Your task to perform on an android device: install app "Google Chat" Image 0: 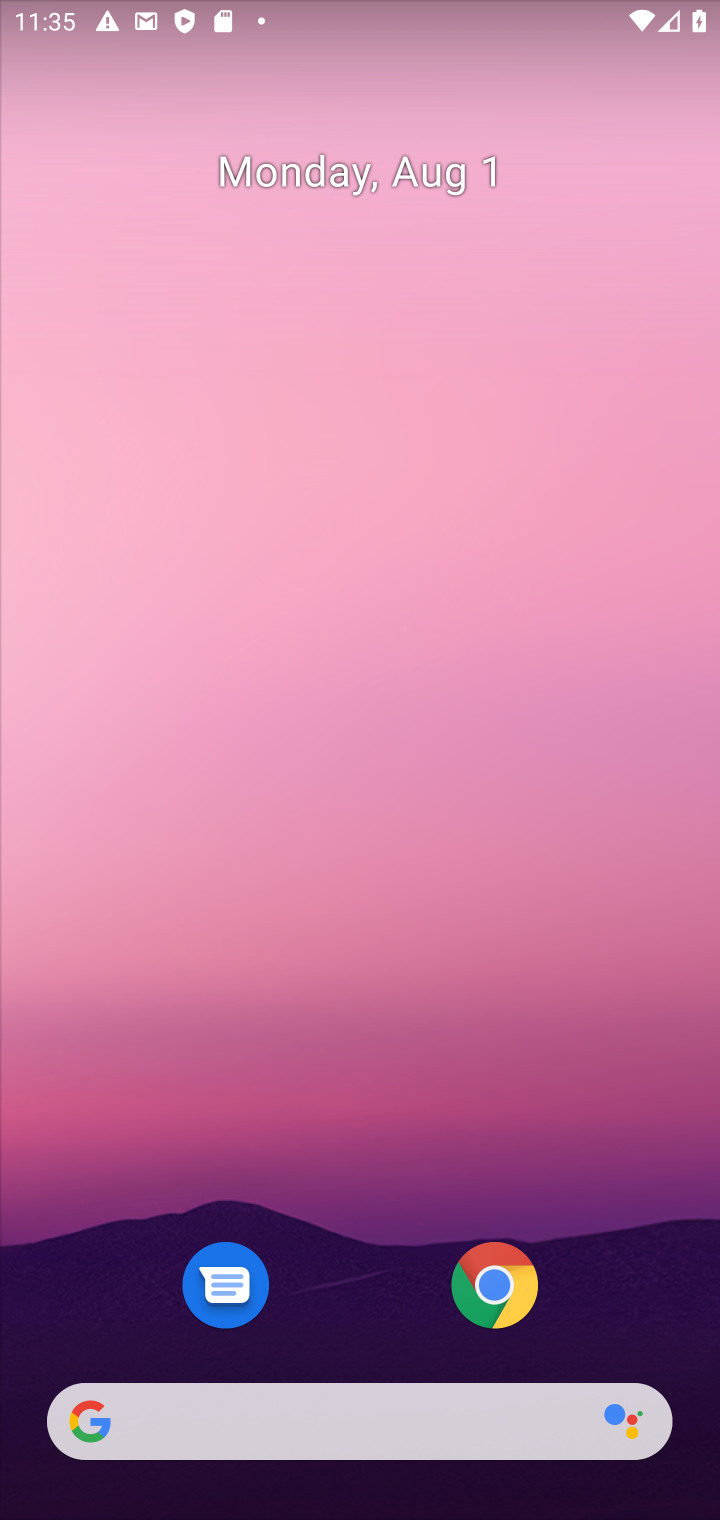
Step 0: press home button
Your task to perform on an android device: install app "Google Chat" Image 1: 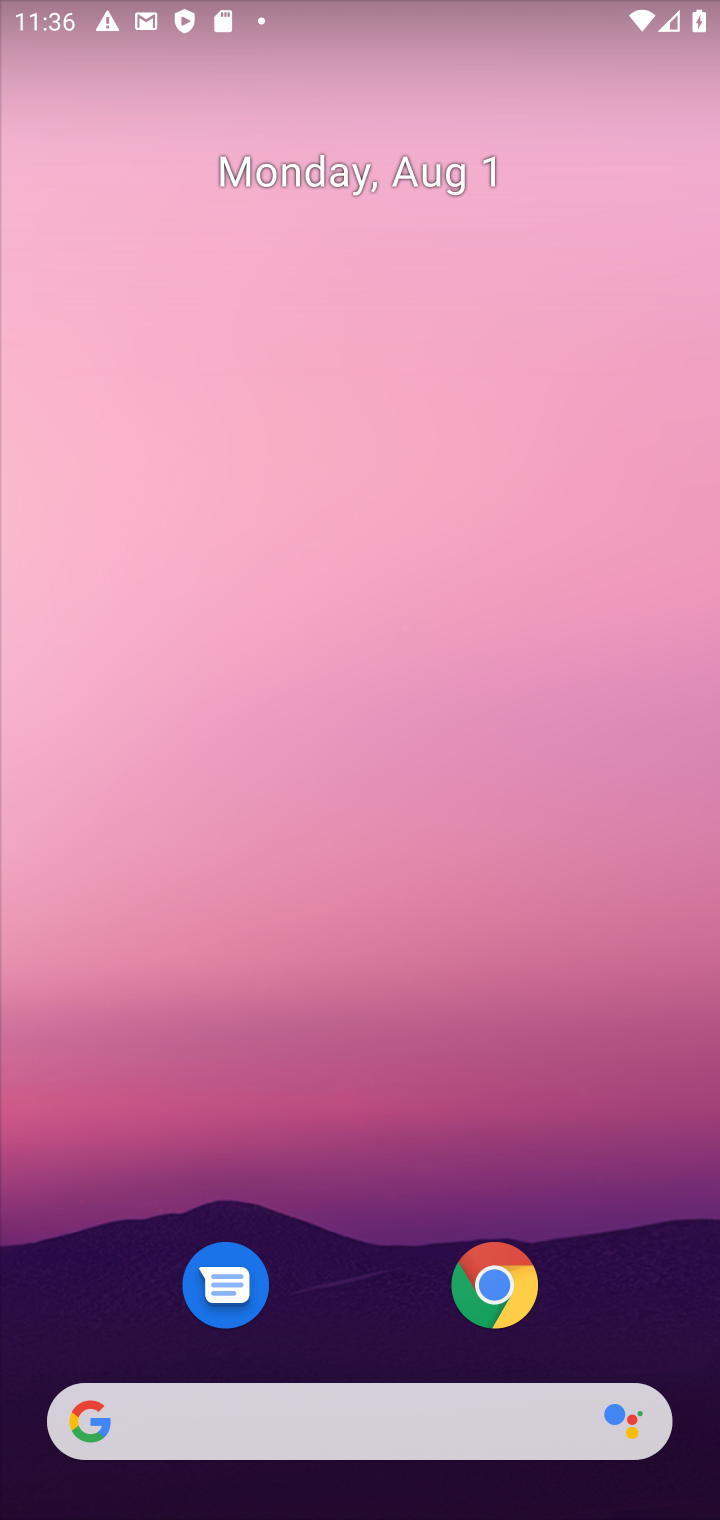
Step 1: drag from (352, 1347) to (315, 171)
Your task to perform on an android device: install app "Google Chat" Image 2: 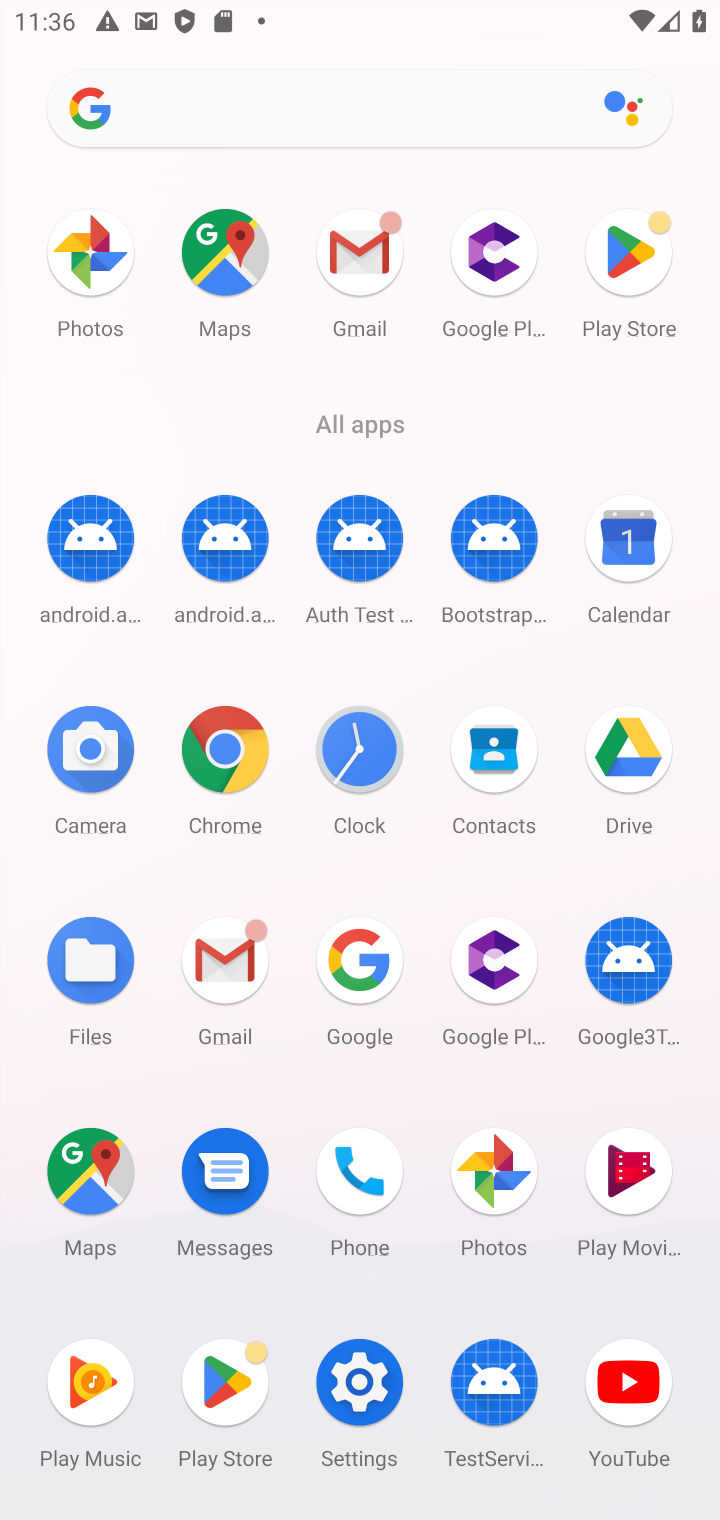
Step 2: click (621, 255)
Your task to perform on an android device: install app "Google Chat" Image 3: 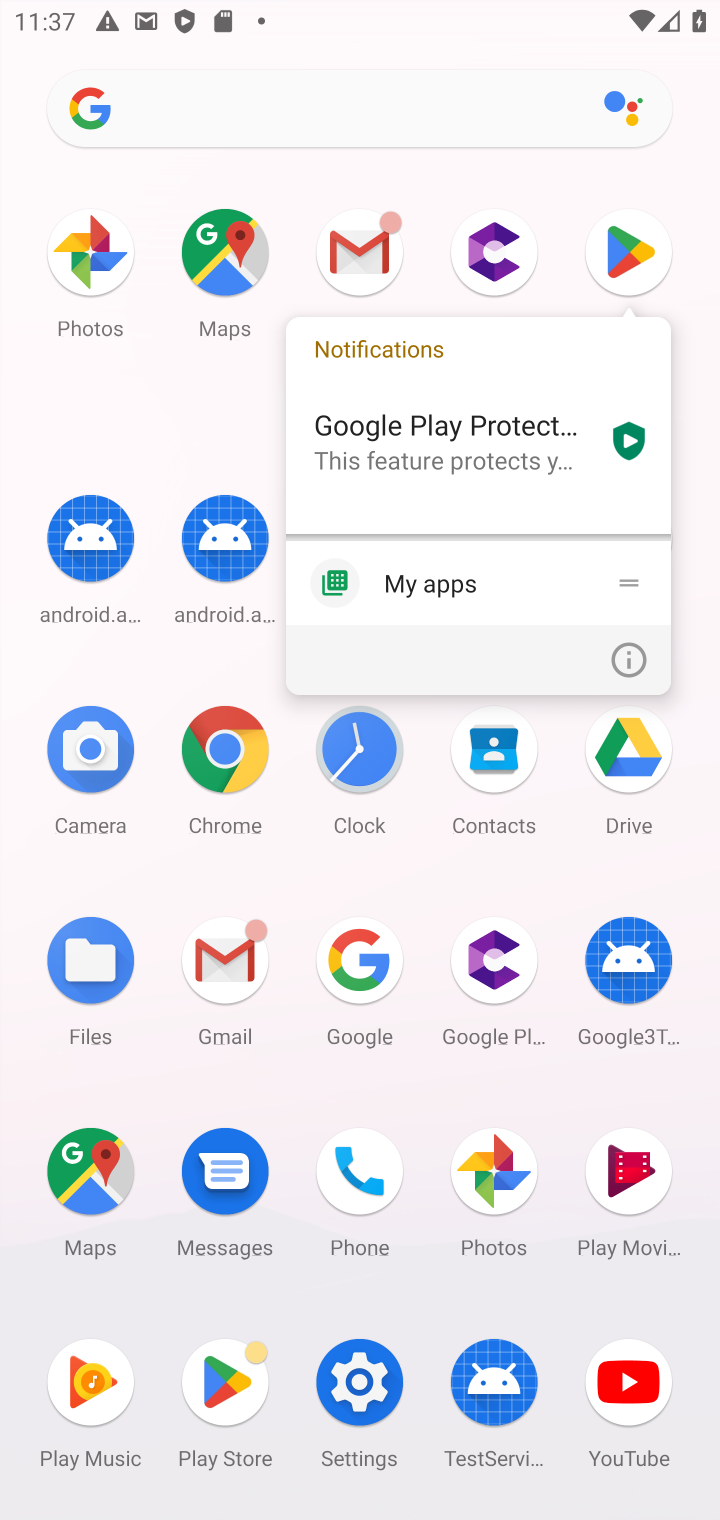
Step 3: click (621, 255)
Your task to perform on an android device: install app "Google Chat" Image 4: 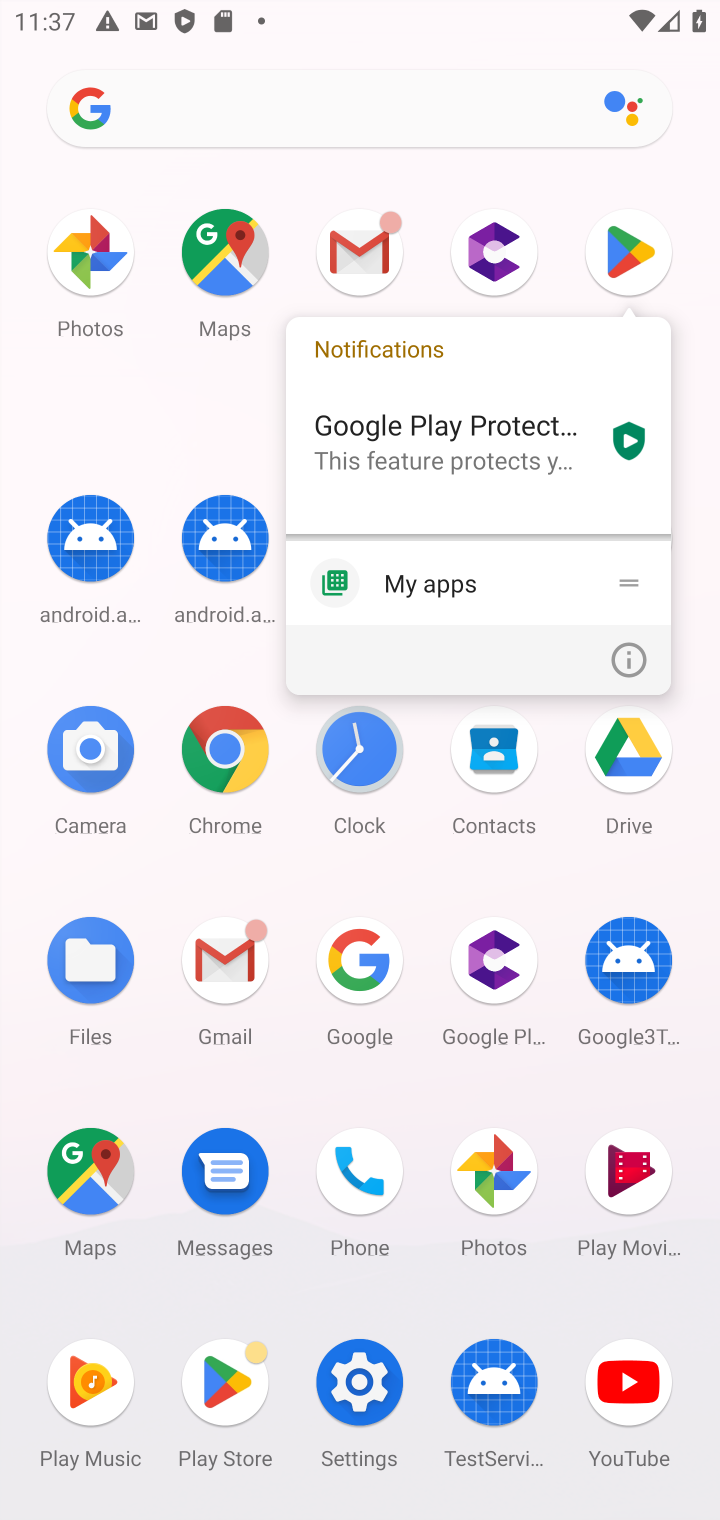
Step 4: click (621, 255)
Your task to perform on an android device: install app "Google Chat" Image 5: 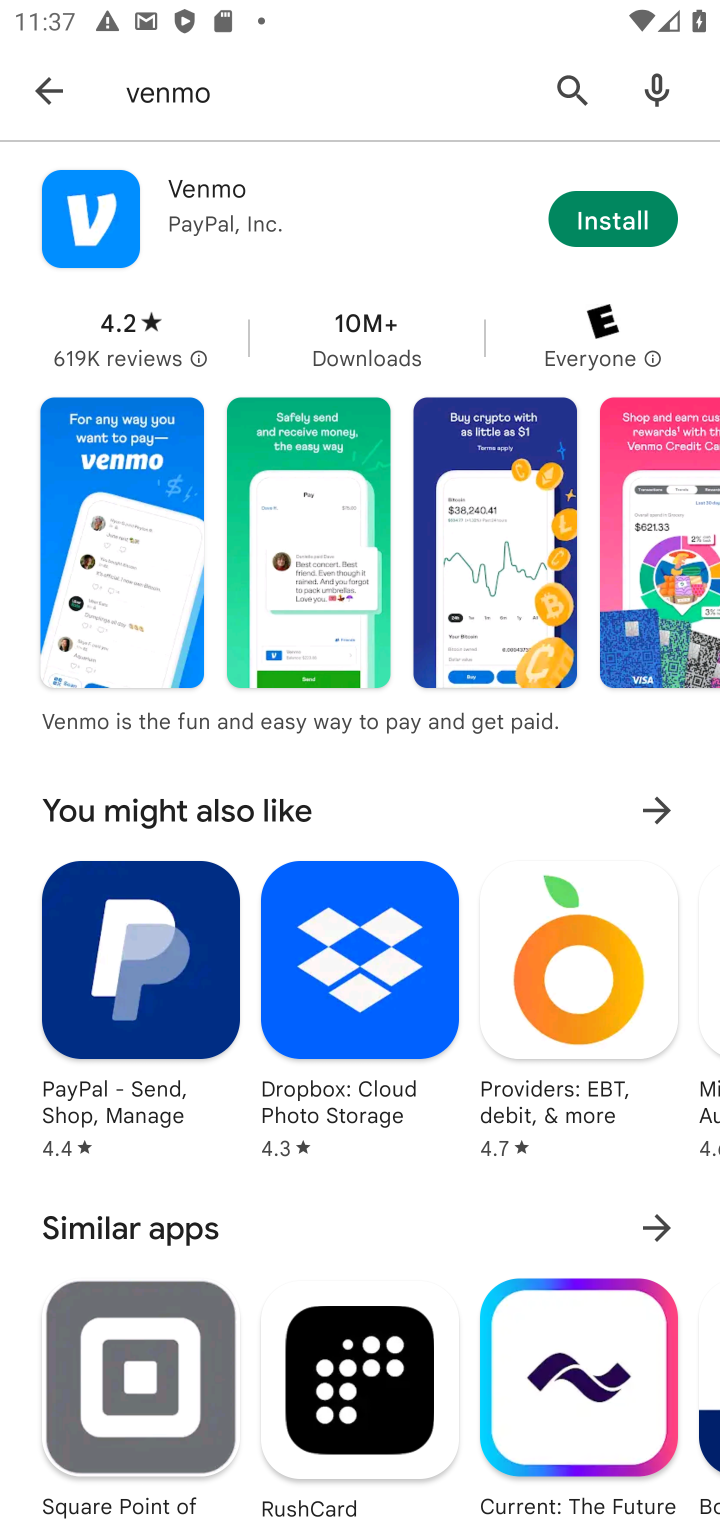
Step 5: click (561, 59)
Your task to perform on an android device: install app "Google Chat" Image 6: 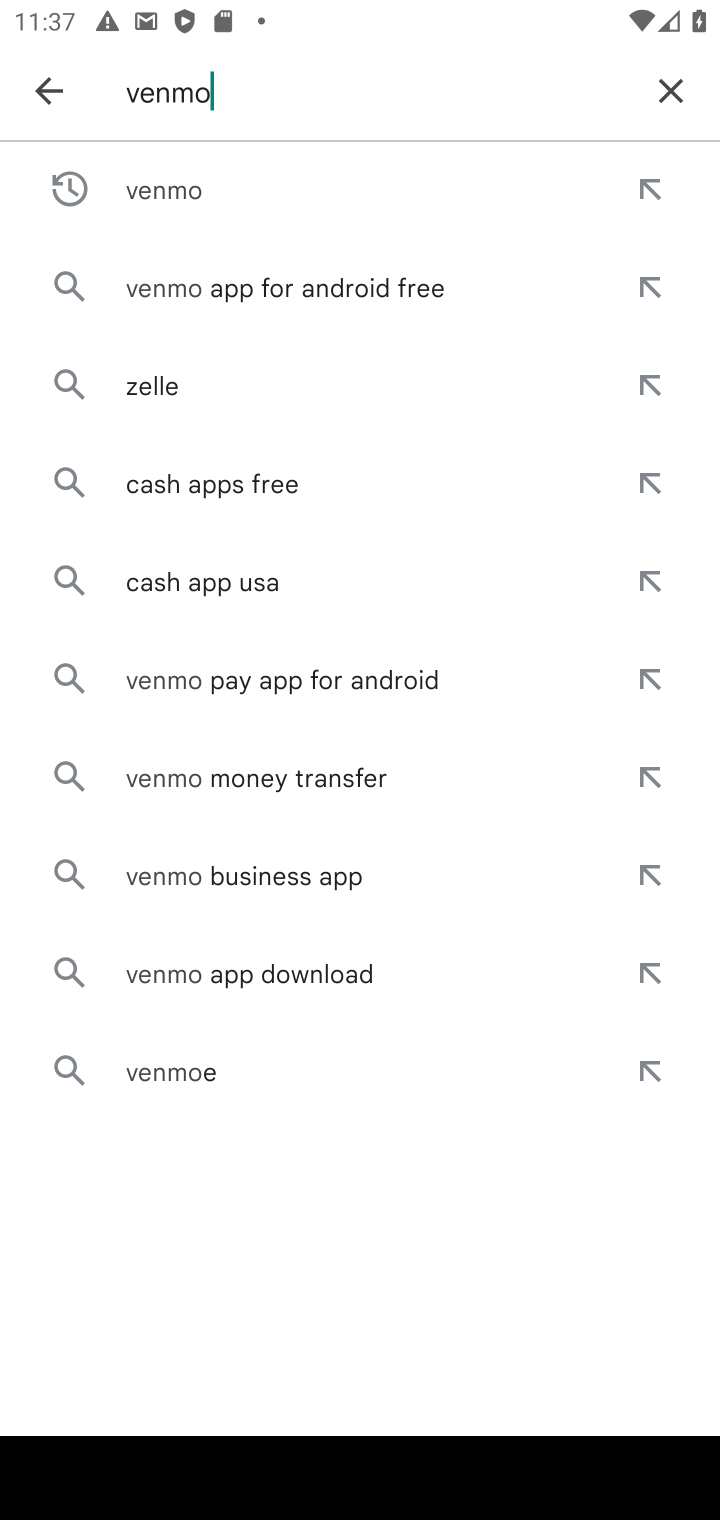
Step 6: click (657, 93)
Your task to perform on an android device: install app "Google Chat" Image 7: 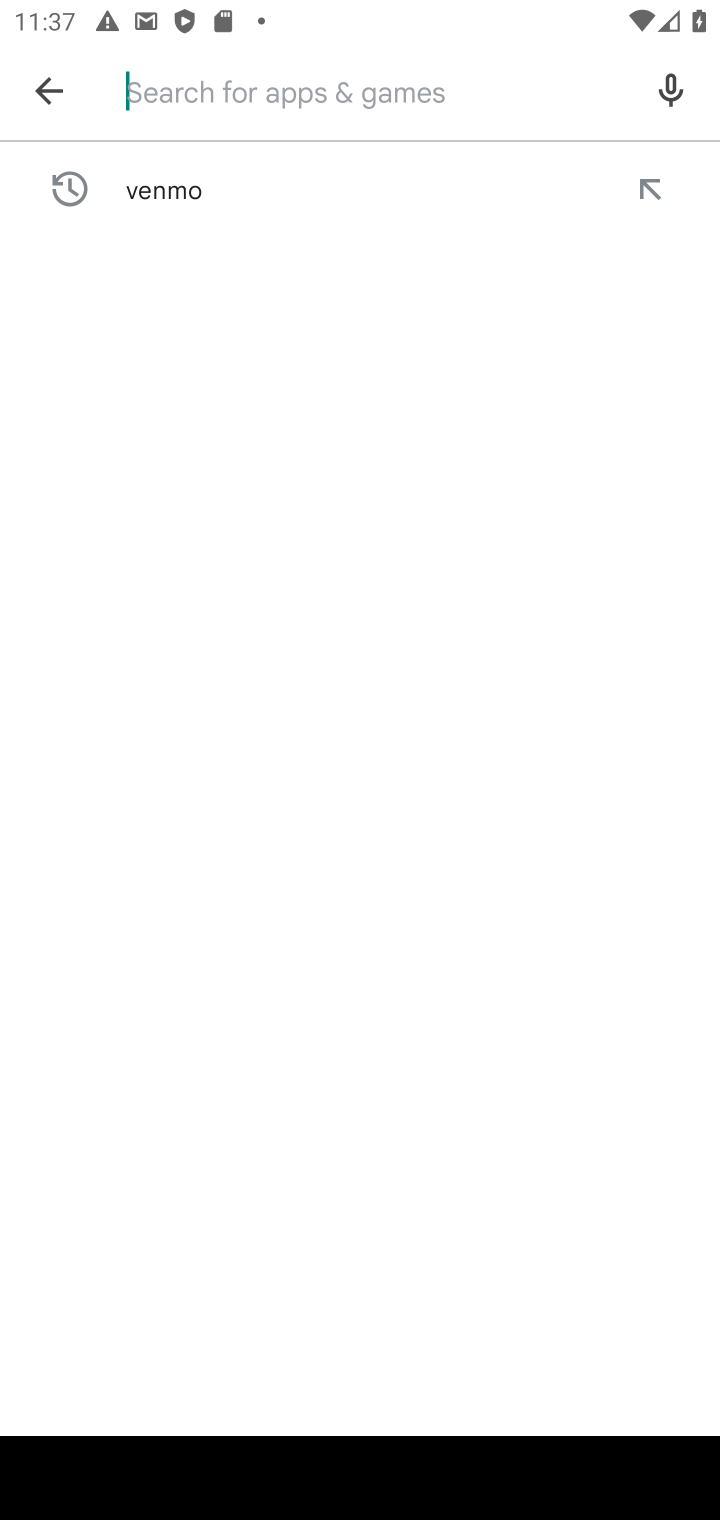
Step 7: type "Google Chat"
Your task to perform on an android device: install app "Google Chat" Image 8: 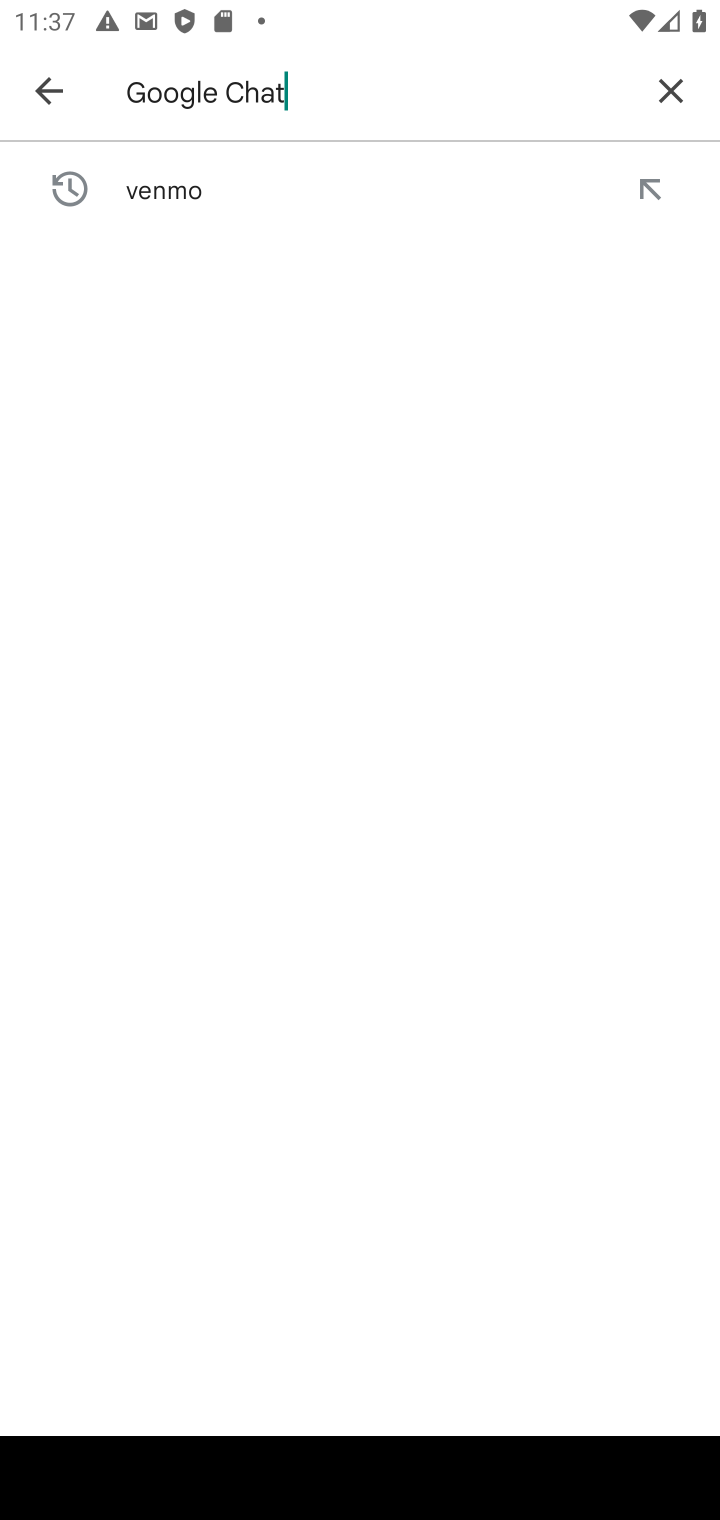
Step 8: type ""
Your task to perform on an android device: install app "Google Chat" Image 9: 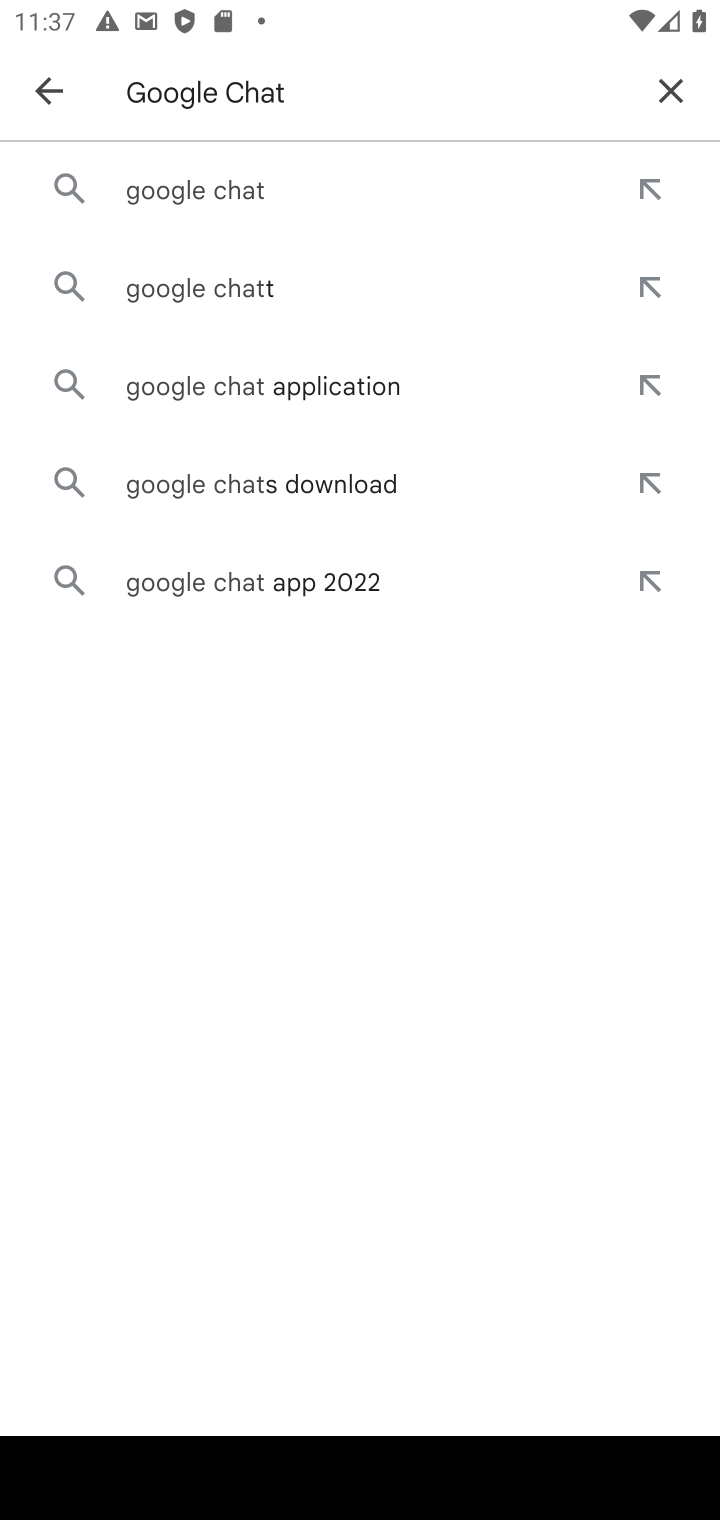
Step 9: click (207, 183)
Your task to perform on an android device: install app "Google Chat" Image 10: 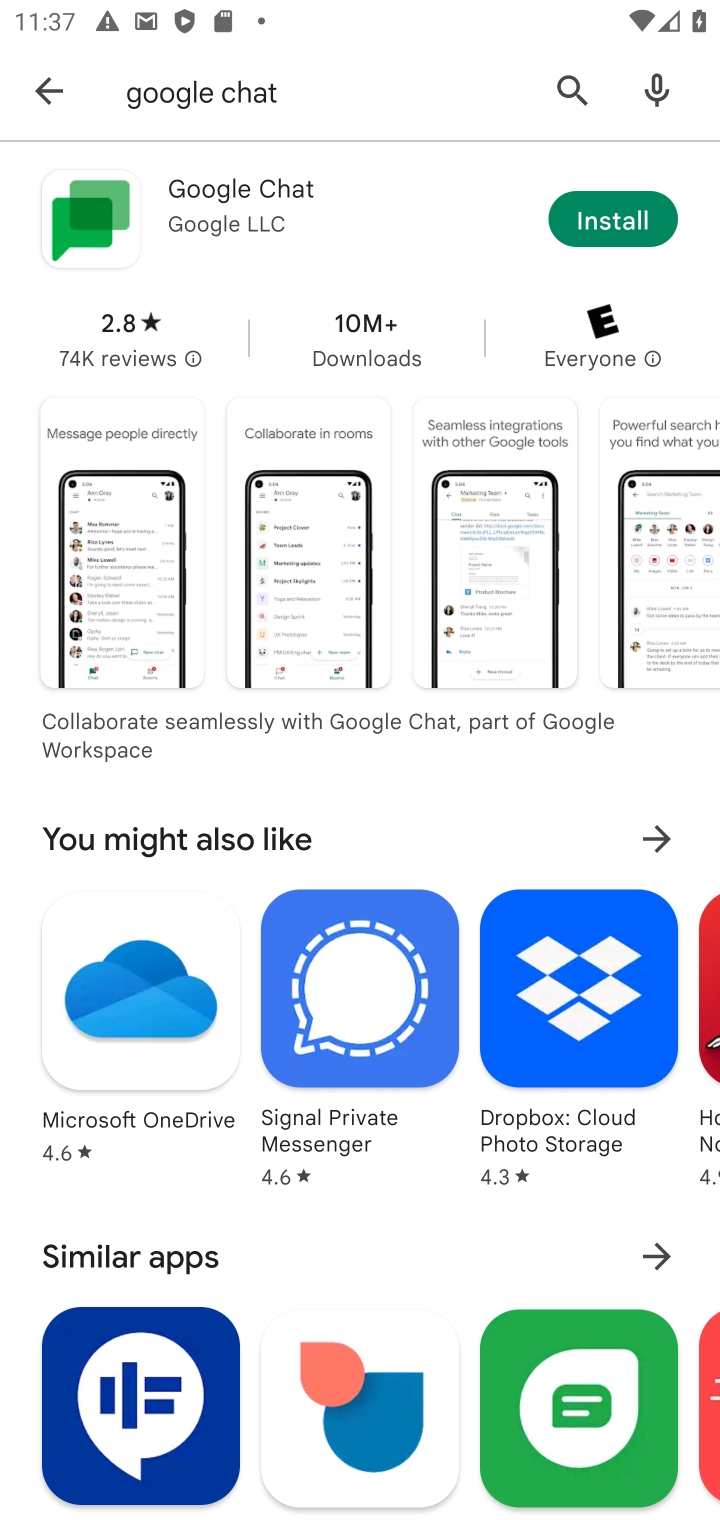
Step 10: click (648, 234)
Your task to perform on an android device: install app "Google Chat" Image 11: 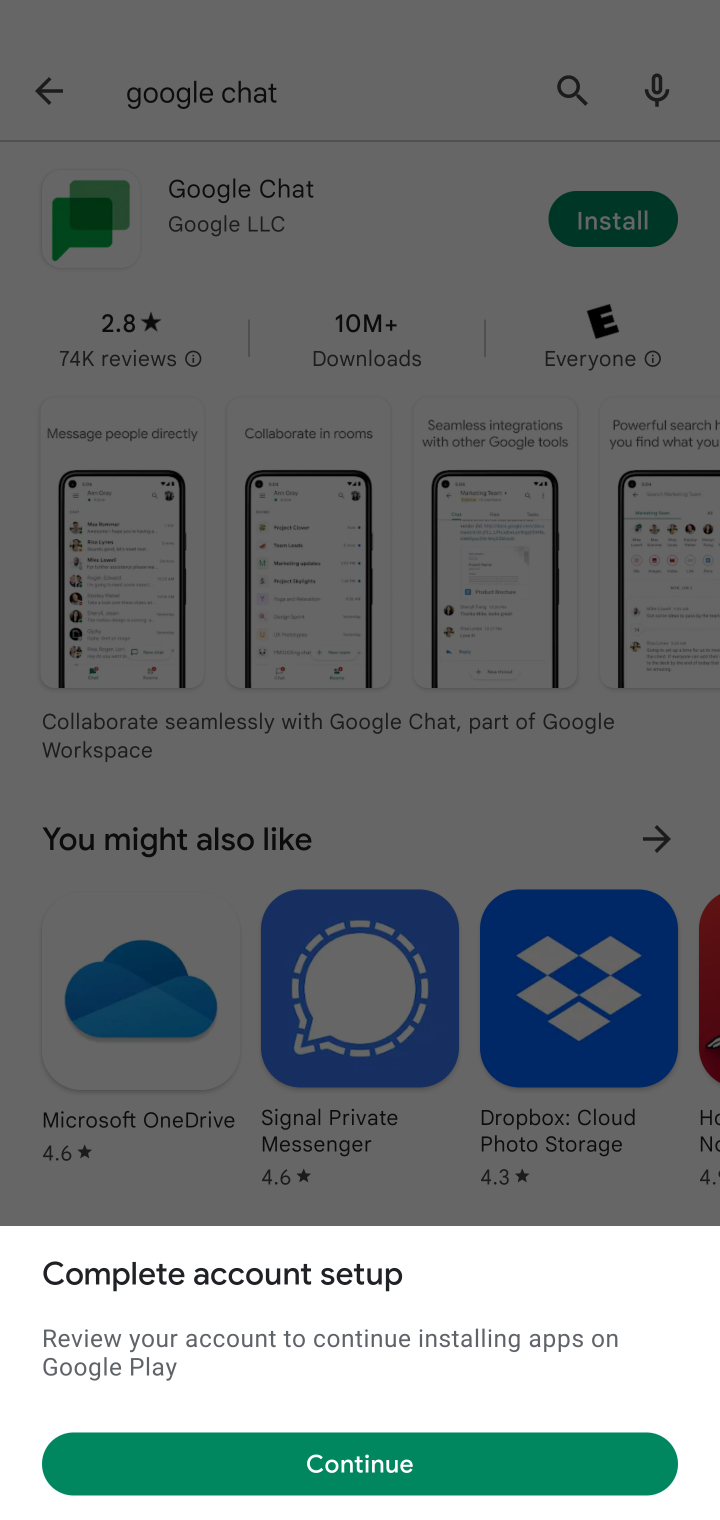
Step 11: click (294, 1465)
Your task to perform on an android device: install app "Google Chat" Image 12: 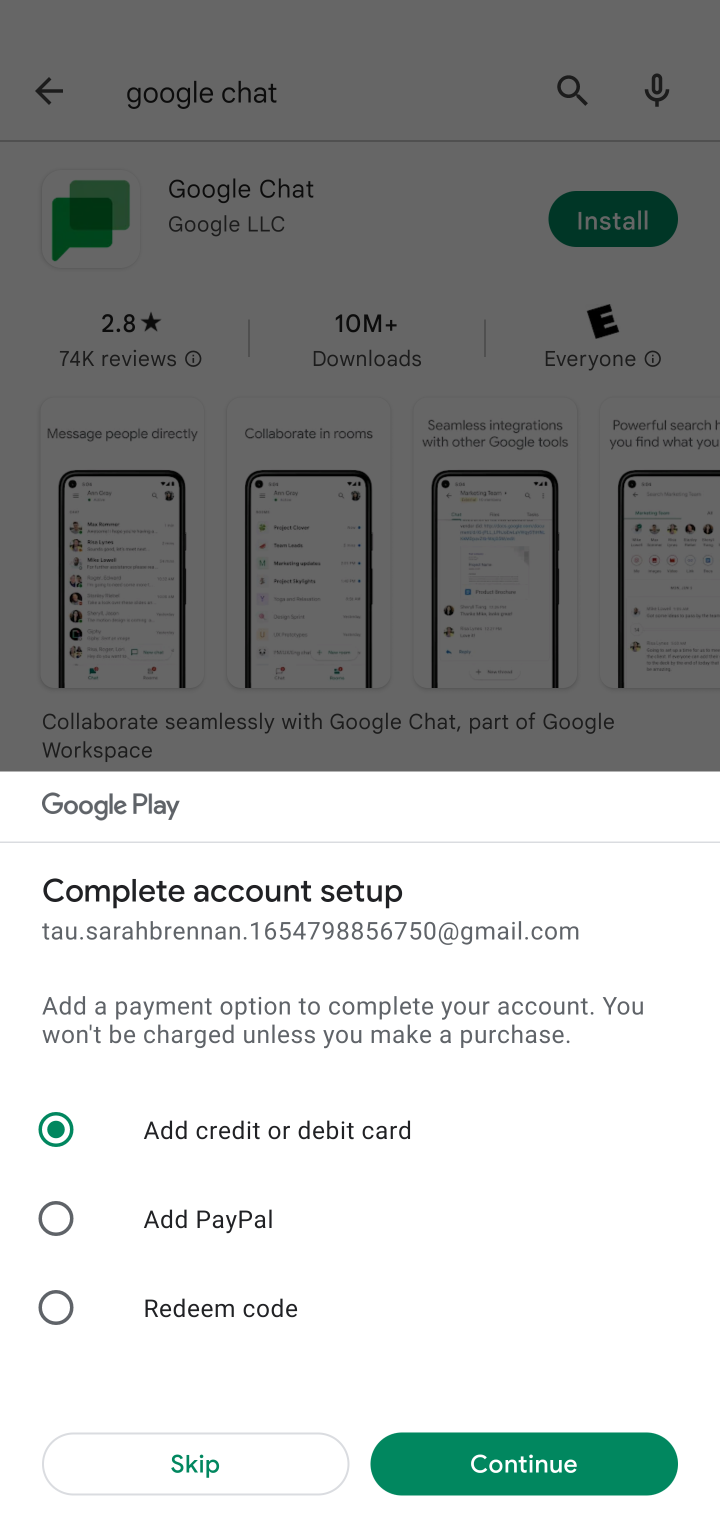
Step 12: click (184, 1477)
Your task to perform on an android device: install app "Google Chat" Image 13: 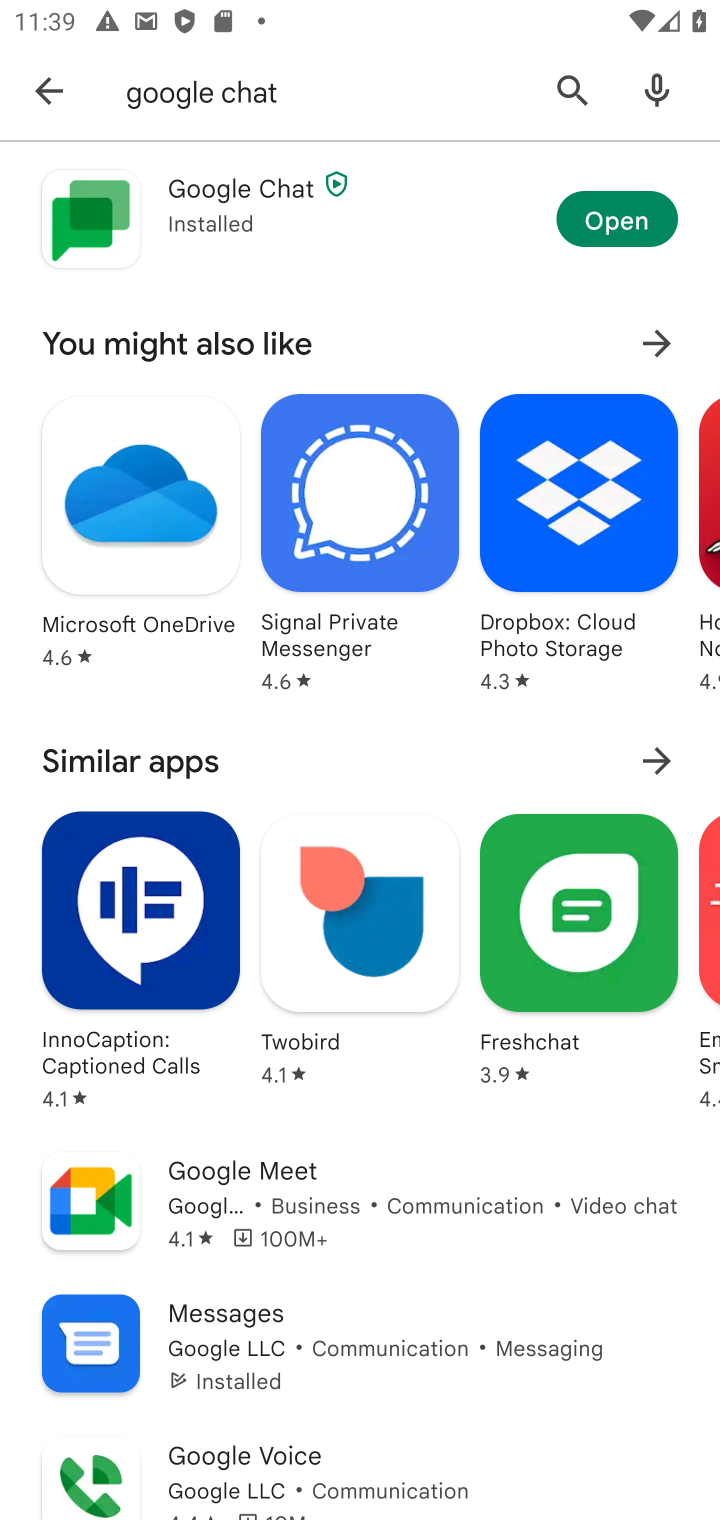
Step 13: task complete